Your task to perform on an android device: Go to battery settings Image 0: 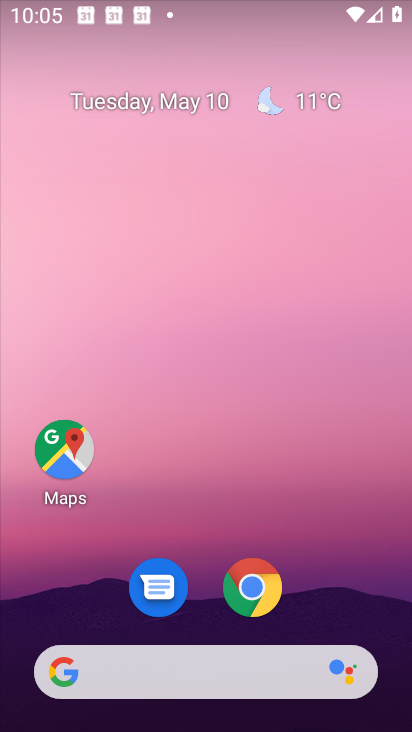
Step 0: press home button
Your task to perform on an android device: Go to battery settings Image 1: 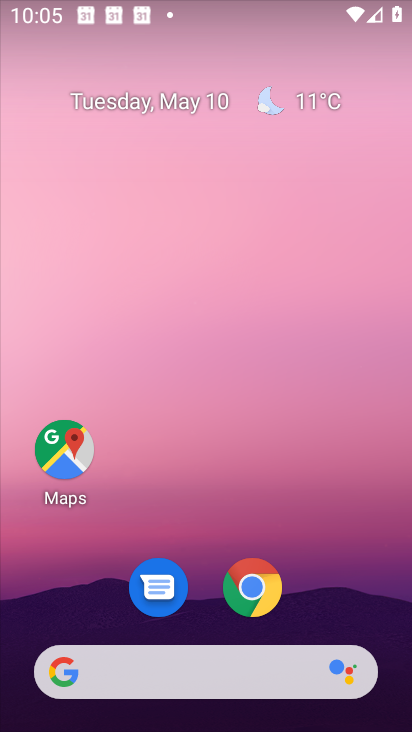
Step 1: drag from (346, 491) to (296, 119)
Your task to perform on an android device: Go to battery settings Image 2: 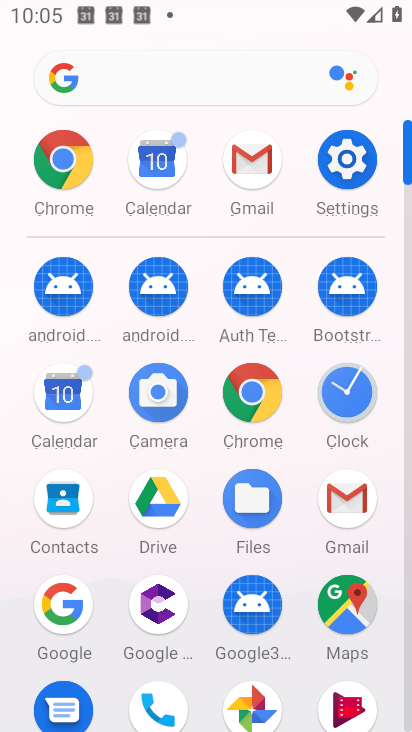
Step 2: click (355, 160)
Your task to perform on an android device: Go to battery settings Image 3: 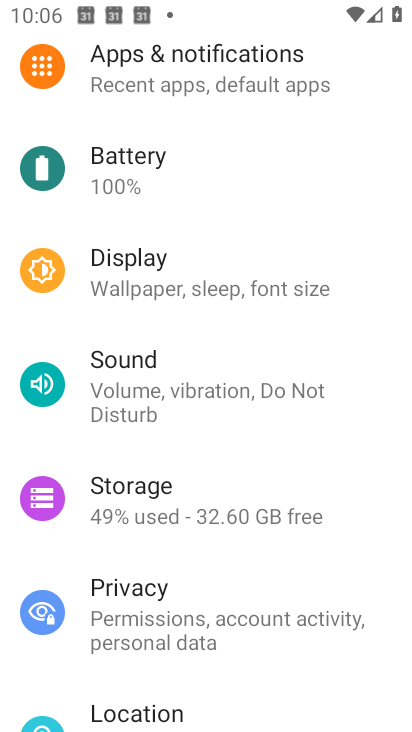
Step 3: click (158, 178)
Your task to perform on an android device: Go to battery settings Image 4: 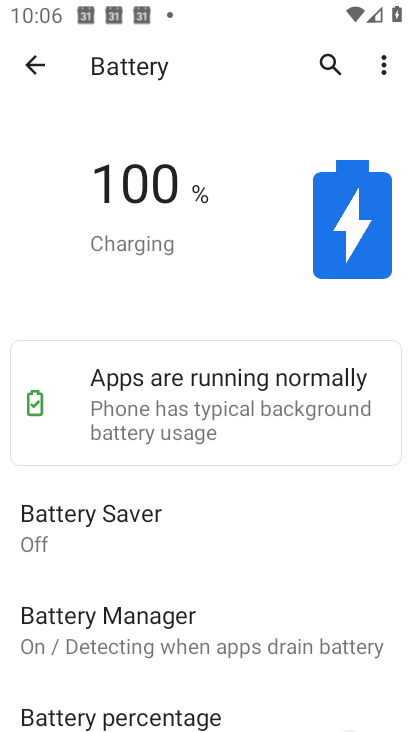
Step 4: task complete